Your task to perform on an android device: toggle sleep mode Image 0: 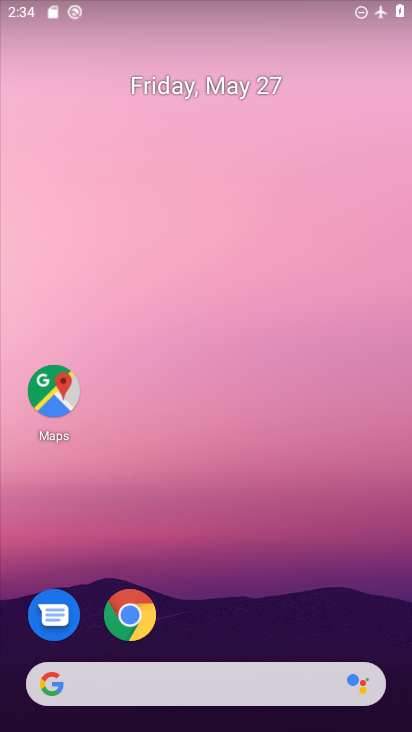
Step 0: drag from (276, 631) to (268, 329)
Your task to perform on an android device: toggle sleep mode Image 1: 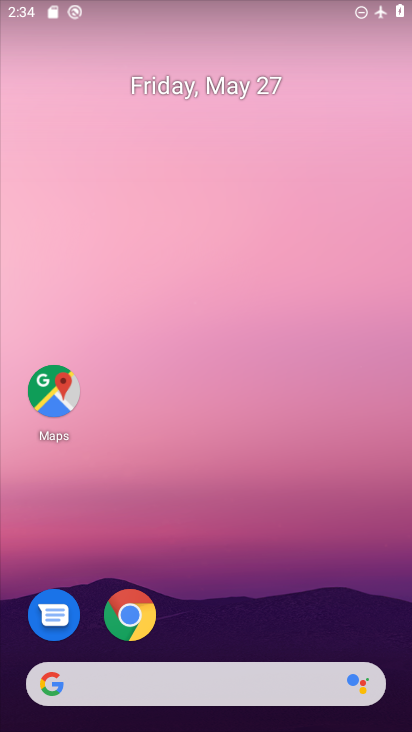
Step 1: drag from (243, 596) to (264, 153)
Your task to perform on an android device: toggle sleep mode Image 2: 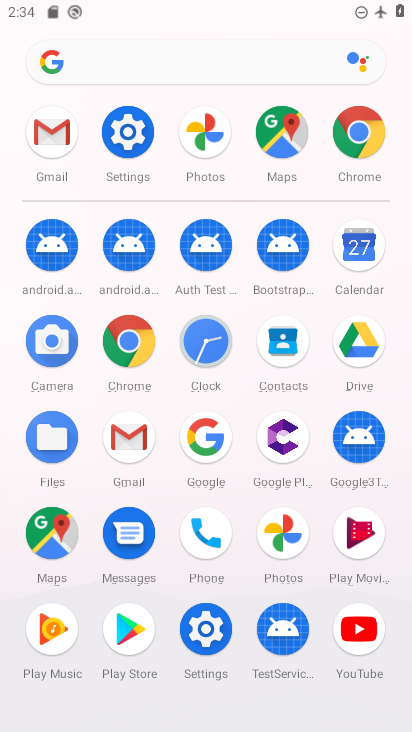
Step 2: click (203, 649)
Your task to perform on an android device: toggle sleep mode Image 3: 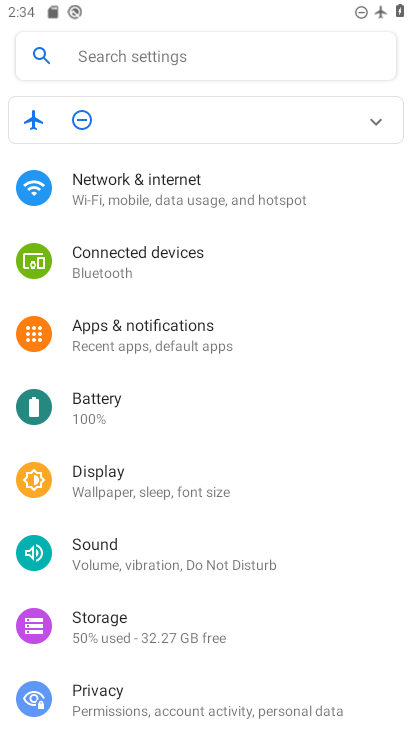
Step 3: task complete